Your task to perform on an android device: Open battery settings Image 0: 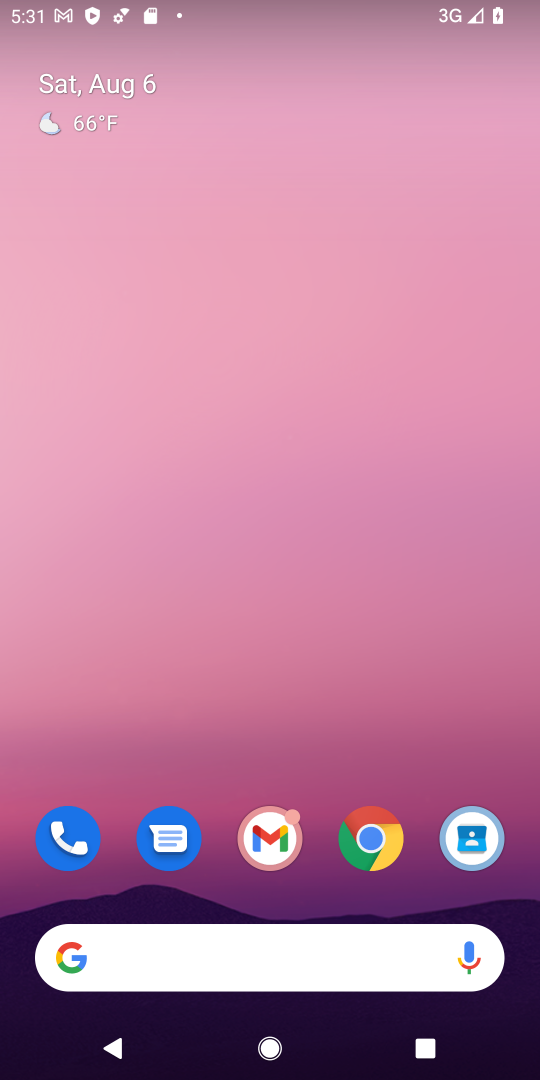
Step 0: drag from (299, 870) to (325, 32)
Your task to perform on an android device: Open battery settings Image 1: 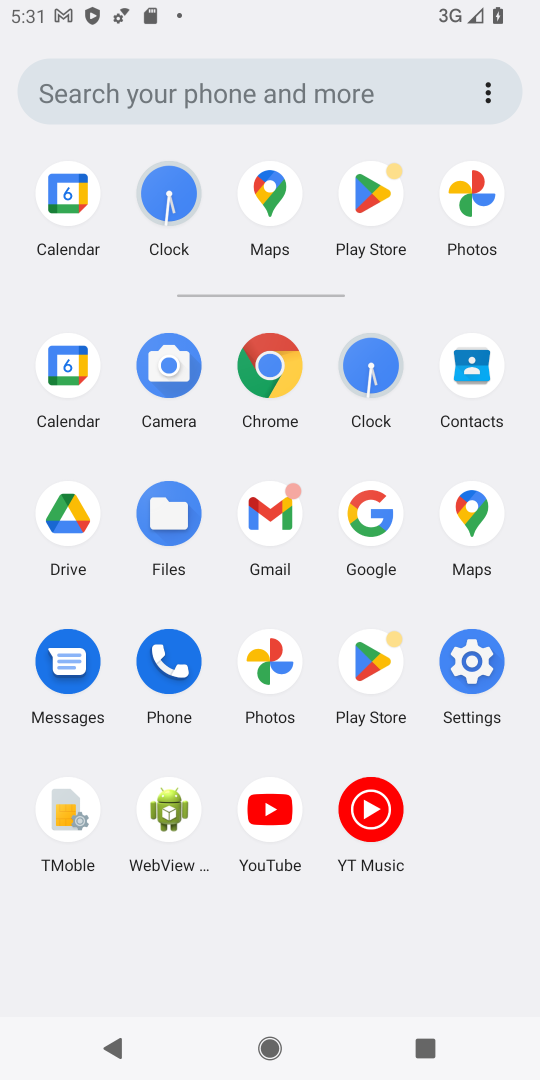
Step 1: click (479, 660)
Your task to perform on an android device: Open battery settings Image 2: 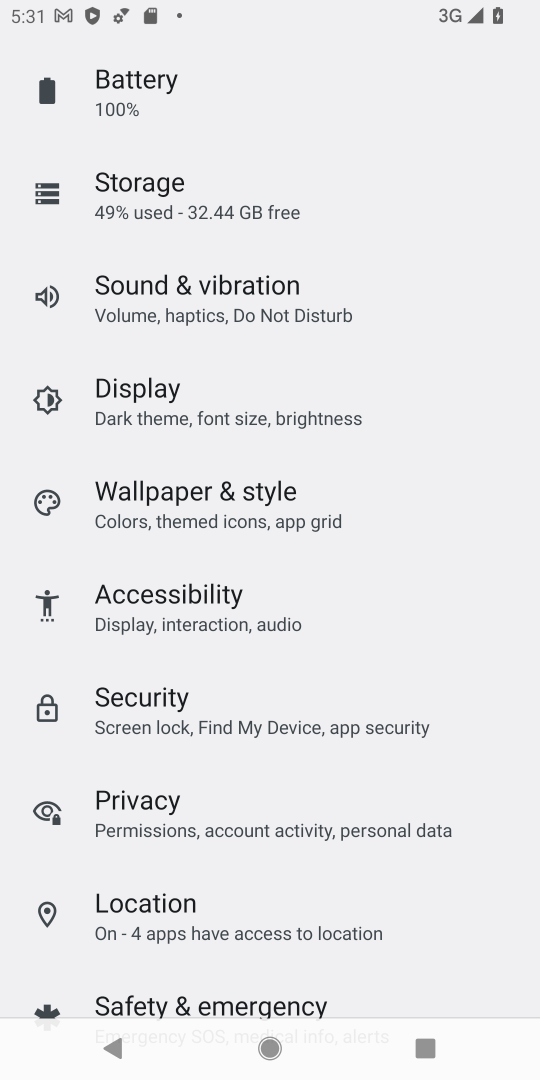
Step 2: click (236, 78)
Your task to perform on an android device: Open battery settings Image 3: 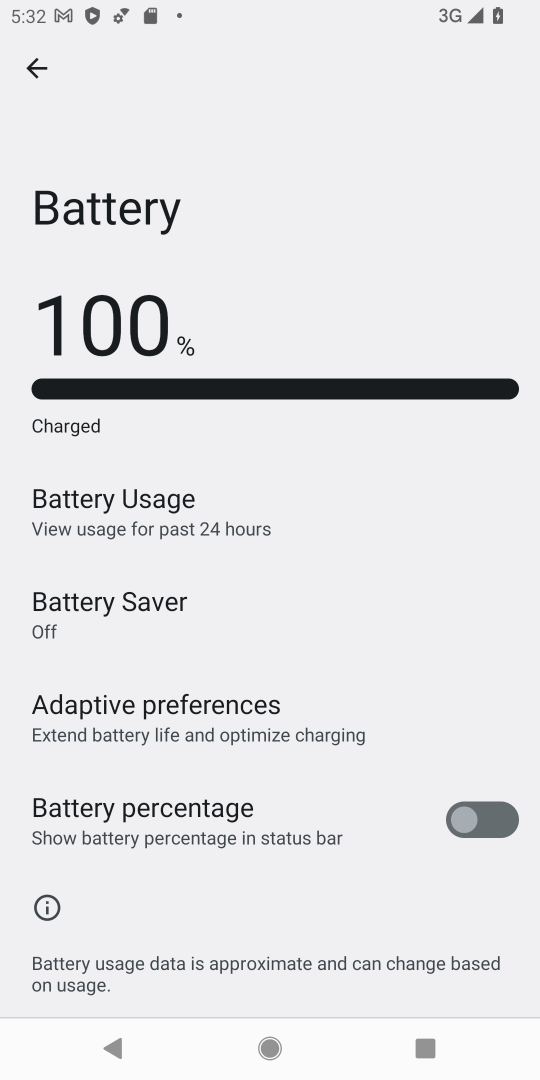
Step 3: task complete